Your task to perform on an android device: open app "Viber Messenger" (install if not already installed), go to login, and select forgot password Image 0: 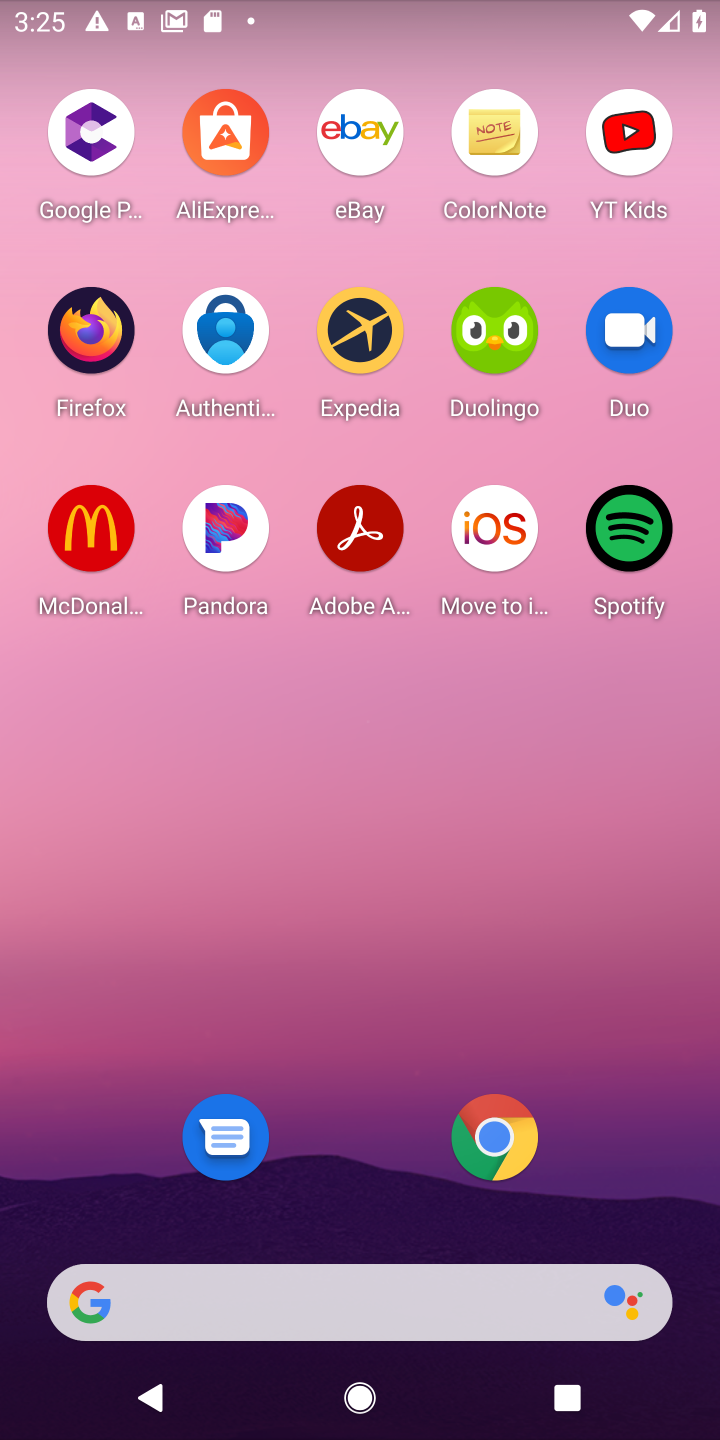
Step 0: drag from (335, 1005) to (339, 527)
Your task to perform on an android device: open app "Viber Messenger" (install if not already installed), go to login, and select forgot password Image 1: 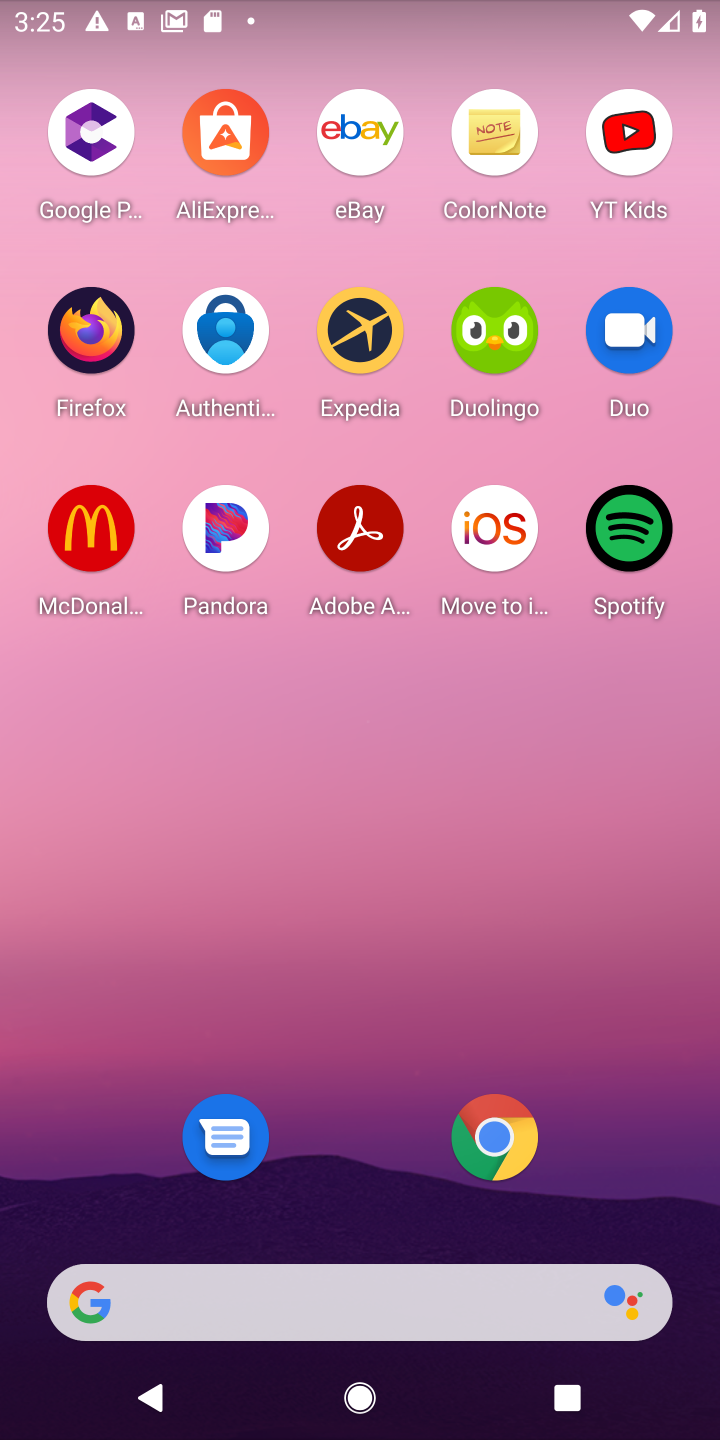
Step 1: drag from (345, 1218) to (455, 212)
Your task to perform on an android device: open app "Viber Messenger" (install if not already installed), go to login, and select forgot password Image 2: 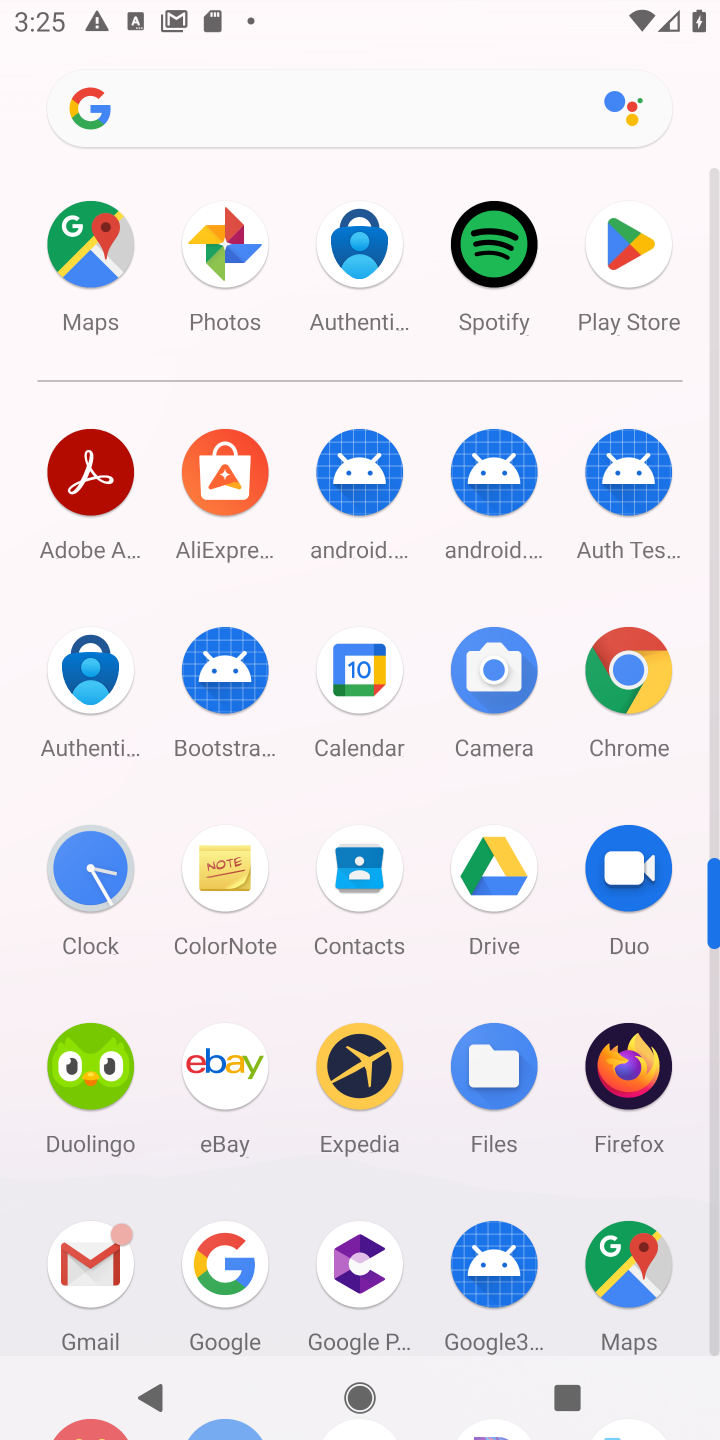
Step 2: click (653, 296)
Your task to perform on an android device: open app "Viber Messenger" (install if not already installed), go to login, and select forgot password Image 3: 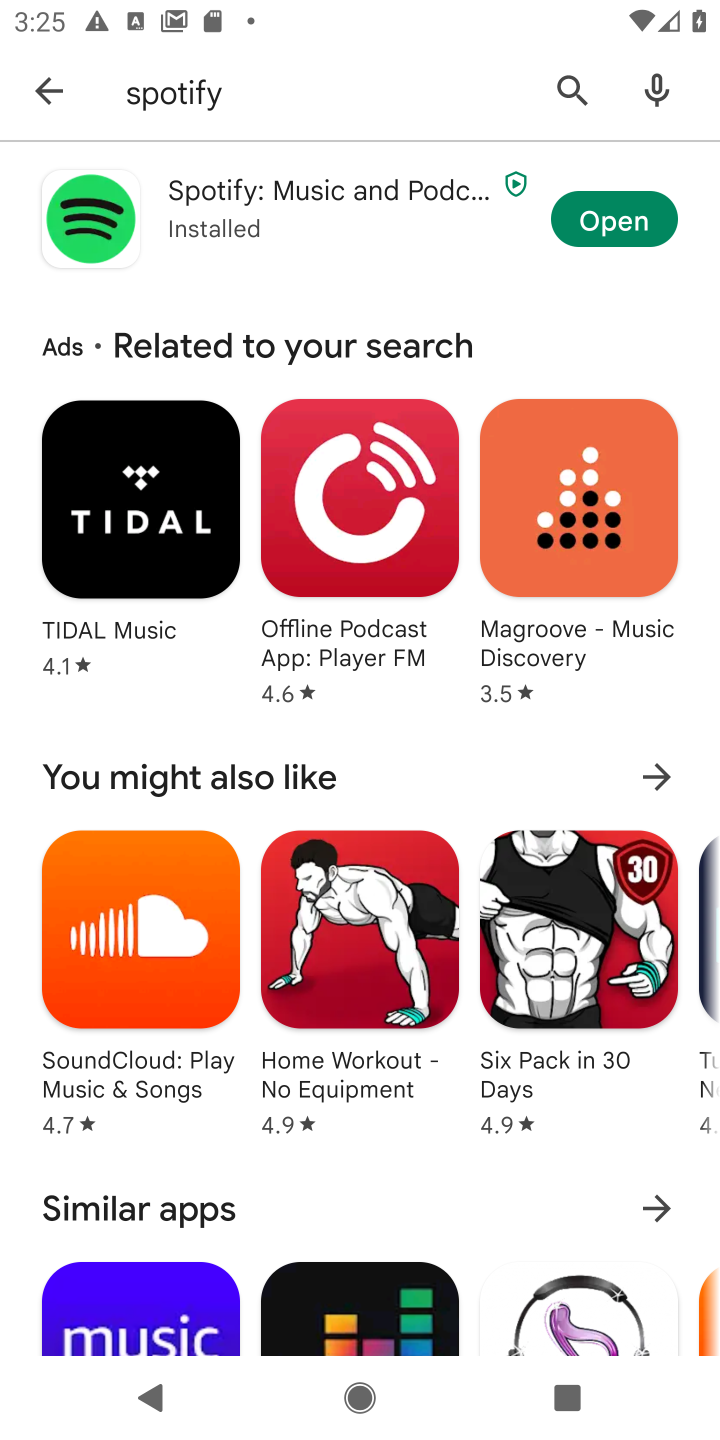
Step 3: click (323, 112)
Your task to perform on an android device: open app "Viber Messenger" (install if not already installed), go to login, and select forgot password Image 4: 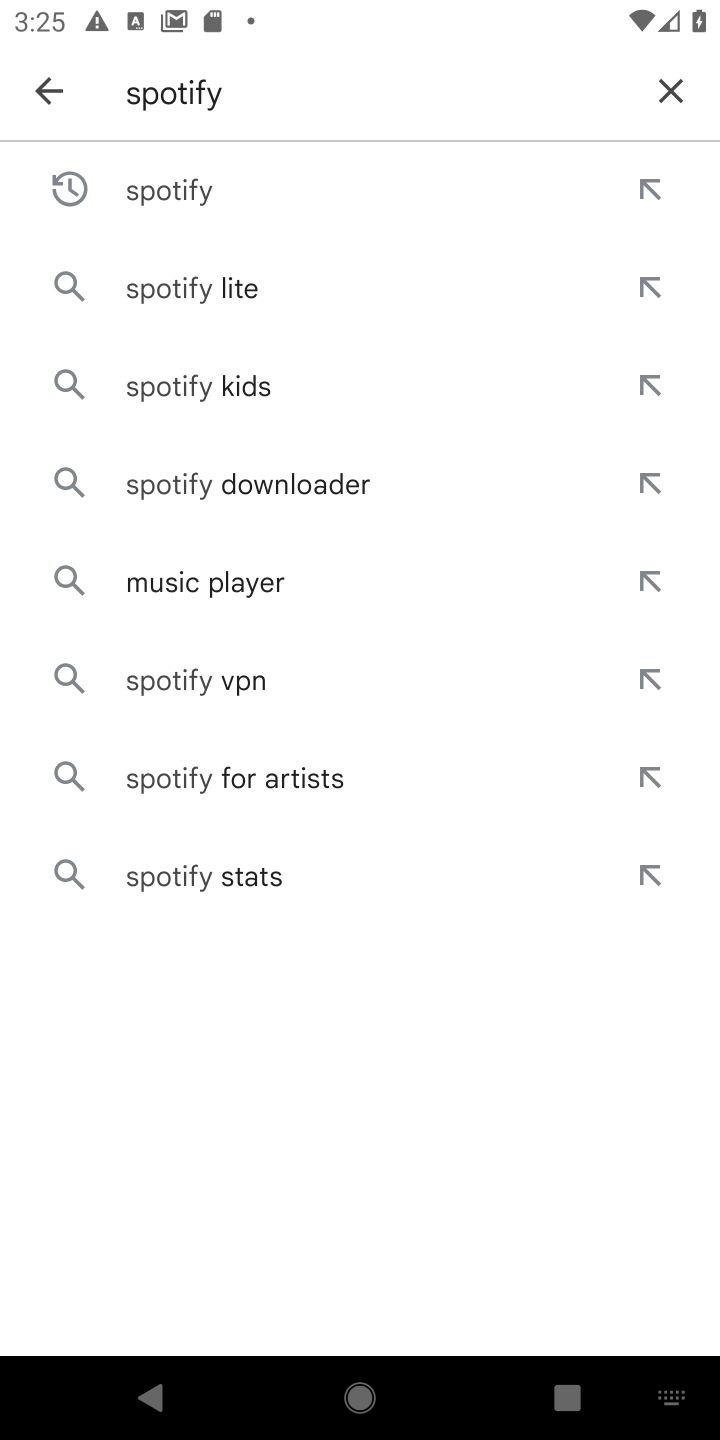
Step 4: click (671, 94)
Your task to perform on an android device: open app "Viber Messenger" (install if not already installed), go to login, and select forgot password Image 5: 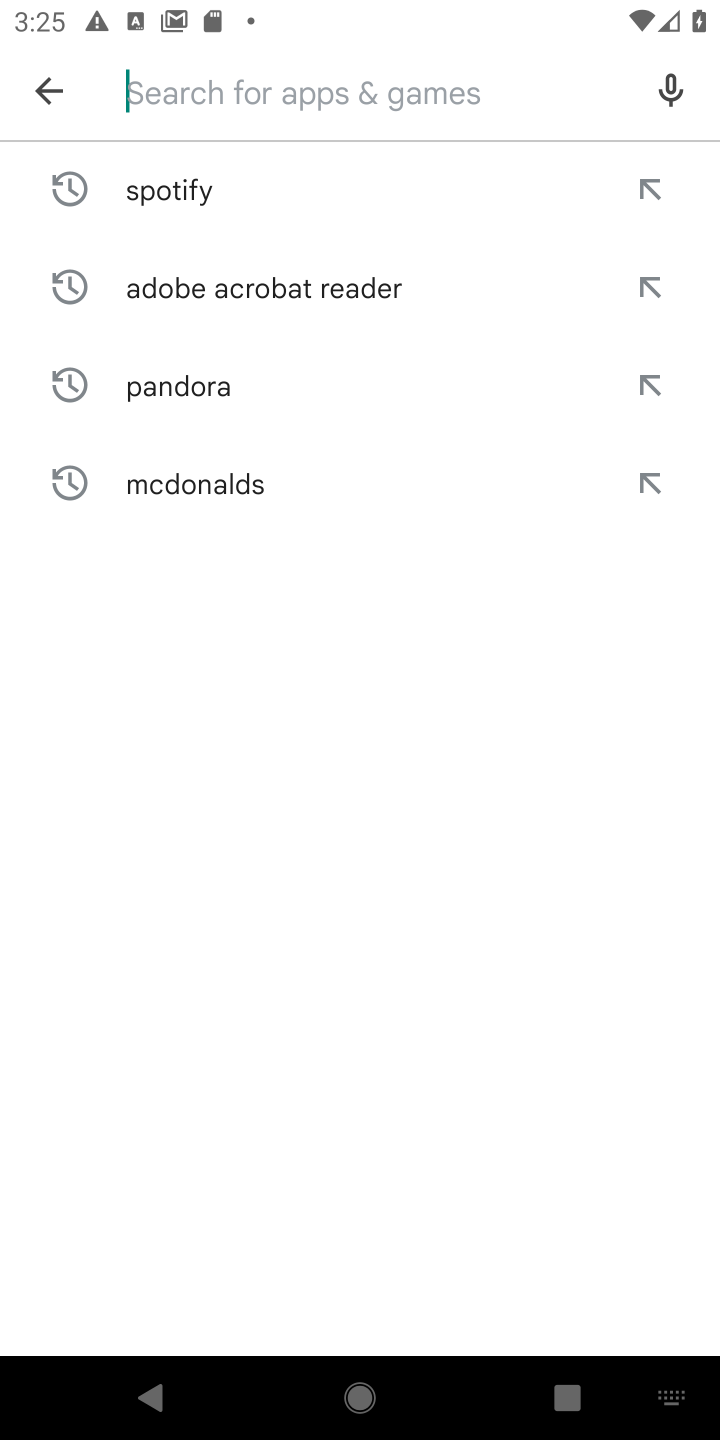
Step 5: type "Viber"
Your task to perform on an android device: open app "Viber Messenger" (install if not already installed), go to login, and select forgot password Image 6: 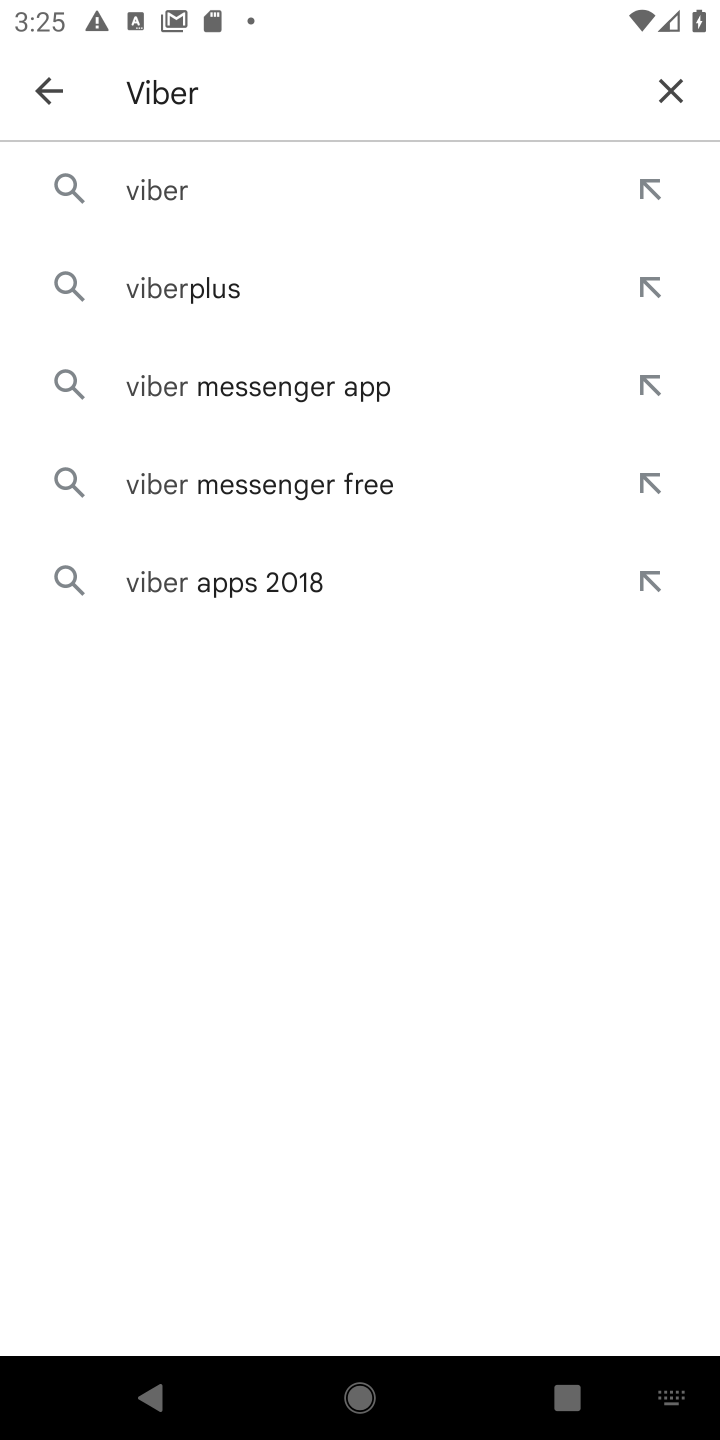
Step 6: click (183, 162)
Your task to perform on an android device: open app "Viber Messenger" (install if not already installed), go to login, and select forgot password Image 7: 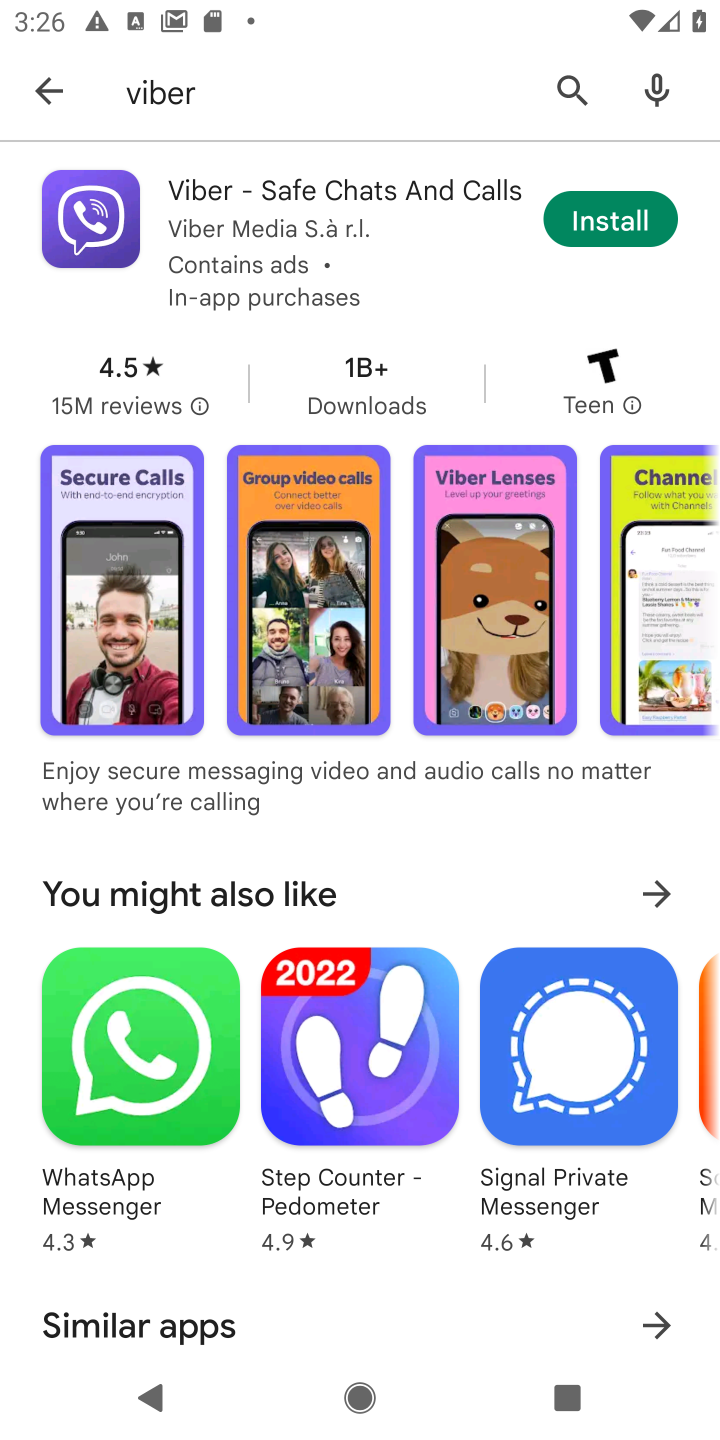
Step 7: click (586, 207)
Your task to perform on an android device: open app "Viber Messenger" (install if not already installed), go to login, and select forgot password Image 8: 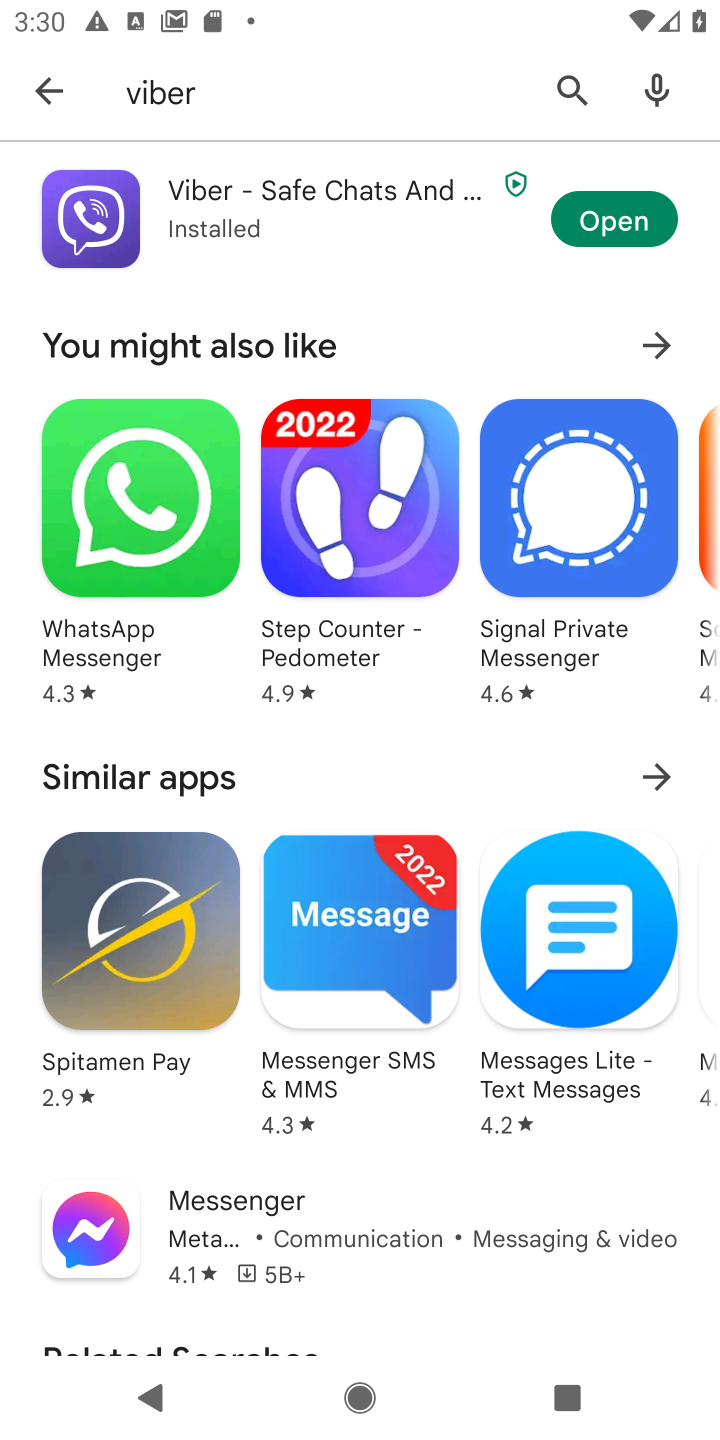
Step 8: click (597, 225)
Your task to perform on an android device: open app "Viber Messenger" (install if not already installed), go to login, and select forgot password Image 9: 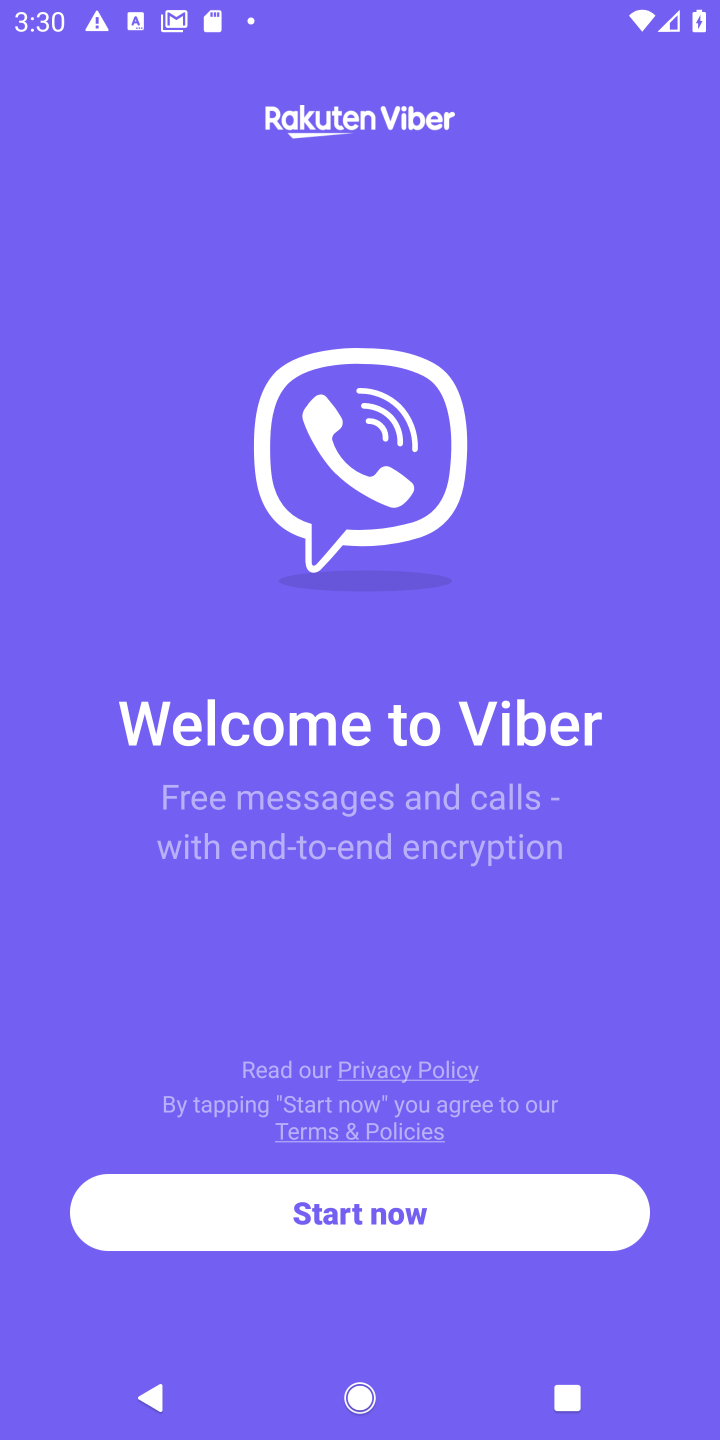
Step 9: click (500, 1204)
Your task to perform on an android device: open app "Viber Messenger" (install if not already installed), go to login, and select forgot password Image 10: 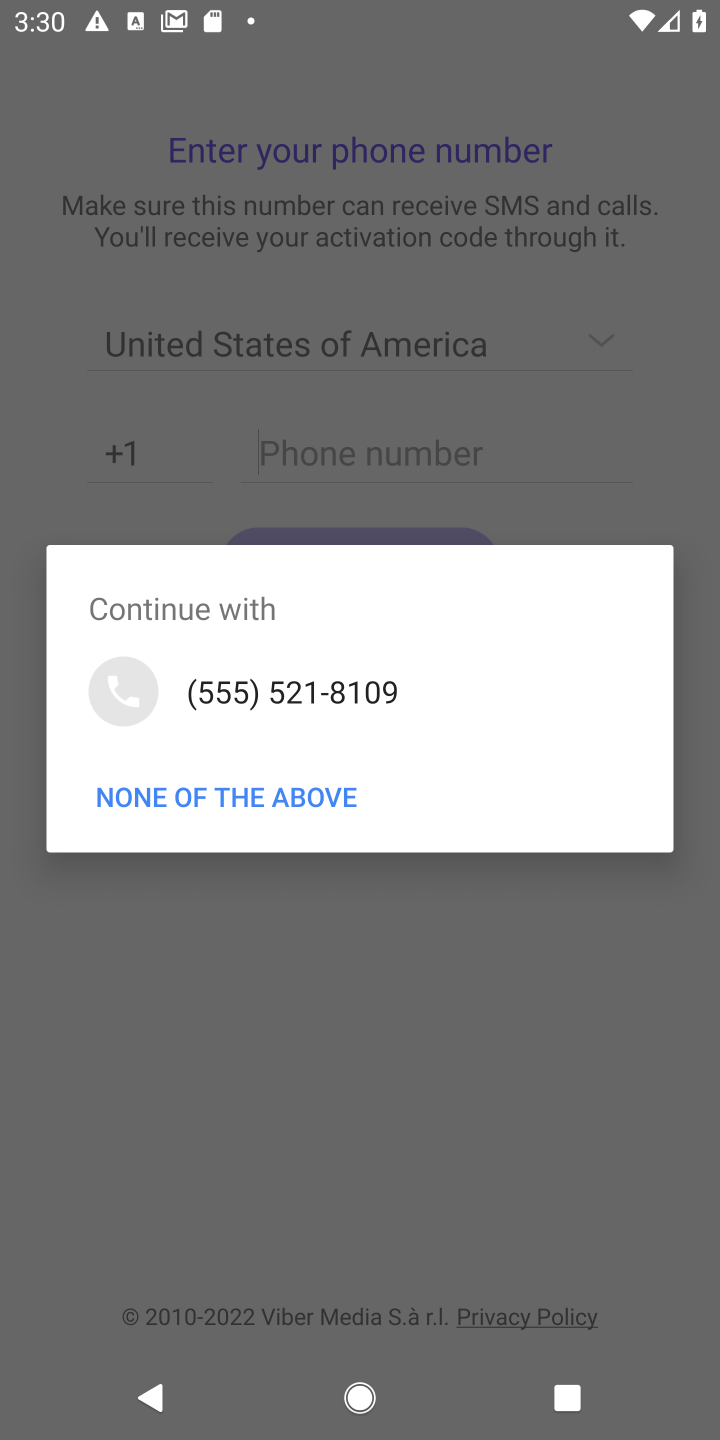
Step 10: click (294, 762)
Your task to perform on an android device: open app "Viber Messenger" (install if not already installed), go to login, and select forgot password Image 11: 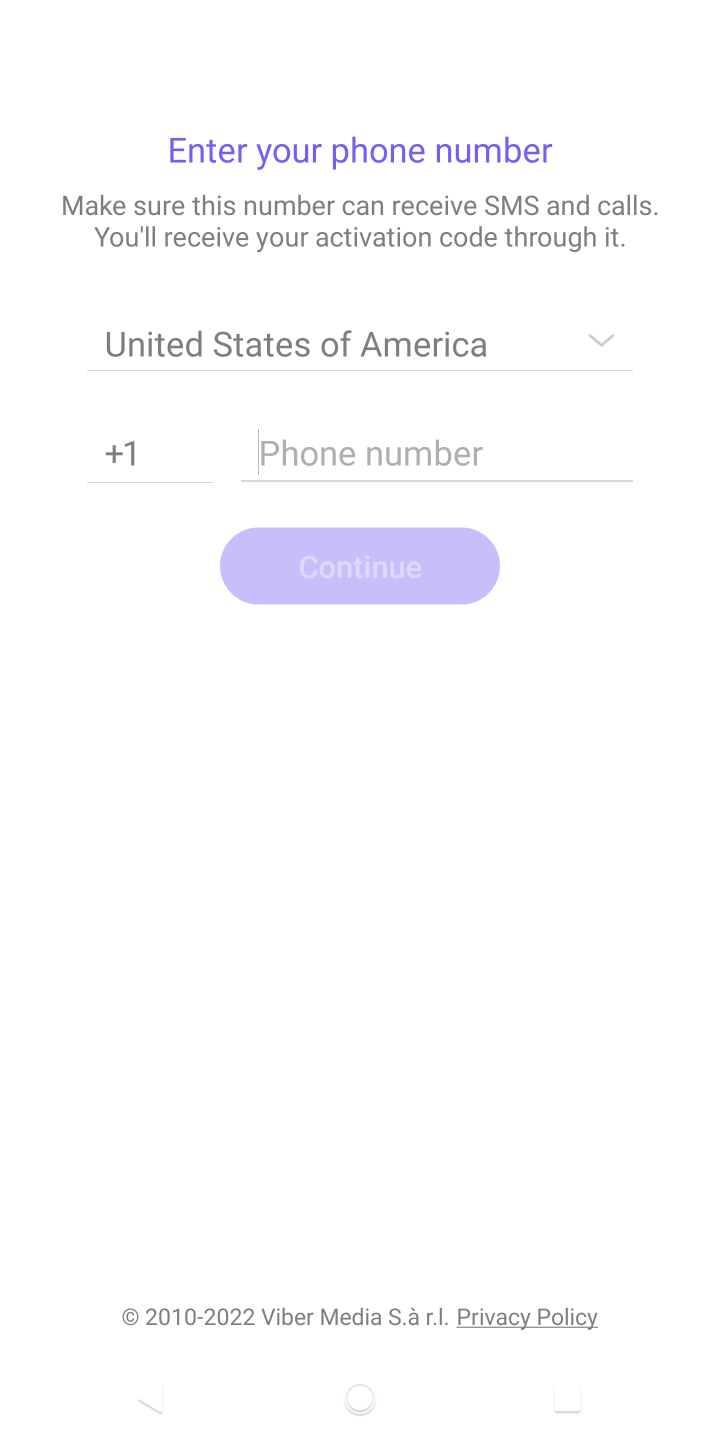
Step 11: click (300, 665)
Your task to perform on an android device: open app "Viber Messenger" (install if not already installed), go to login, and select forgot password Image 12: 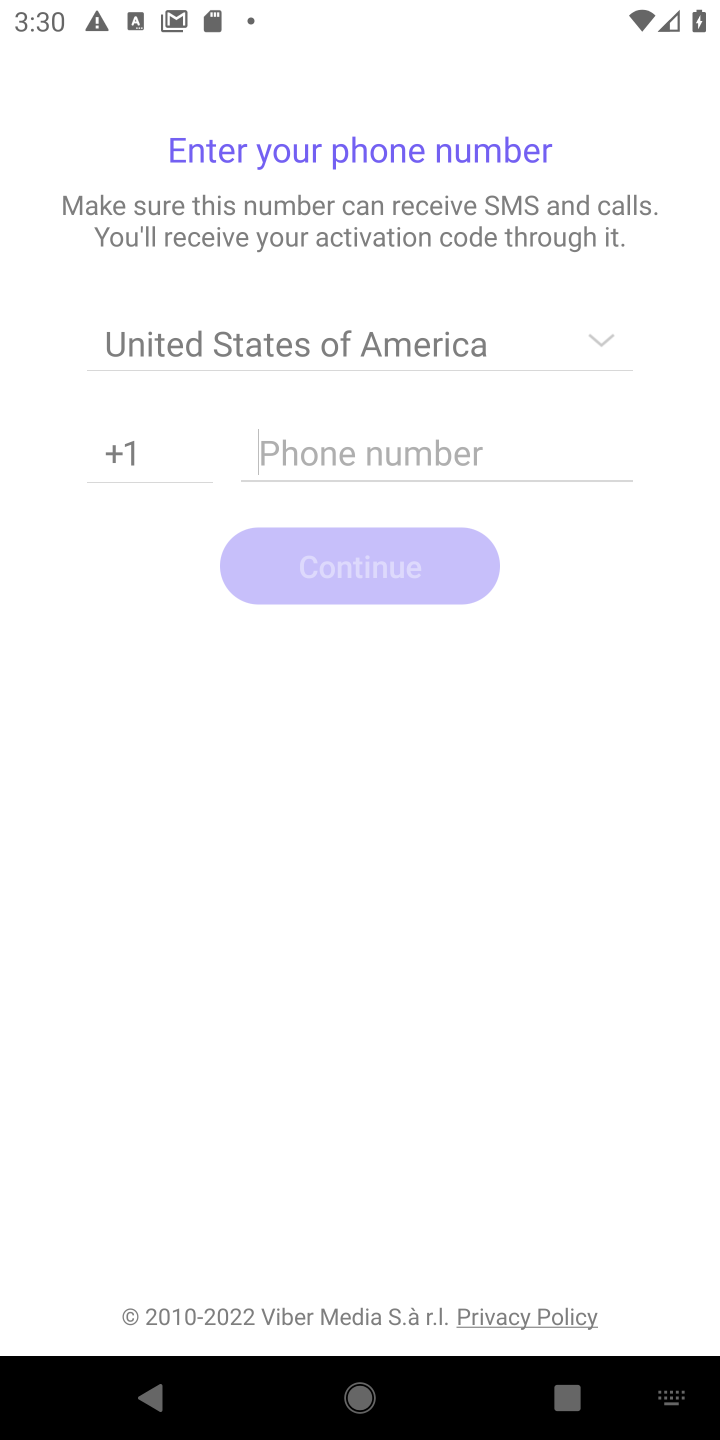
Step 12: task complete